Your task to perform on an android device: turn on javascript in the chrome app Image 0: 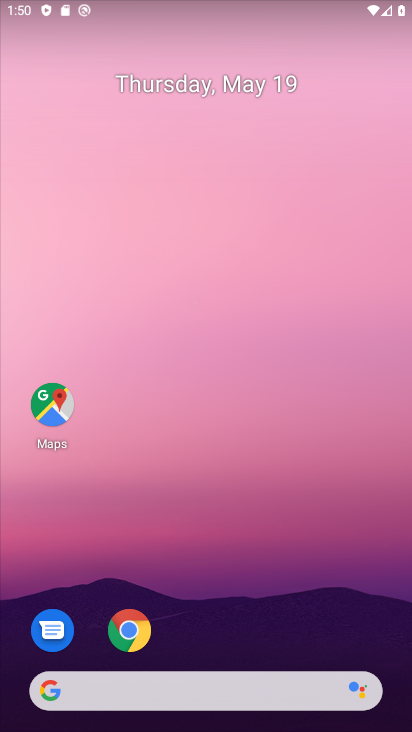
Step 0: drag from (274, 591) to (253, 26)
Your task to perform on an android device: turn on javascript in the chrome app Image 1: 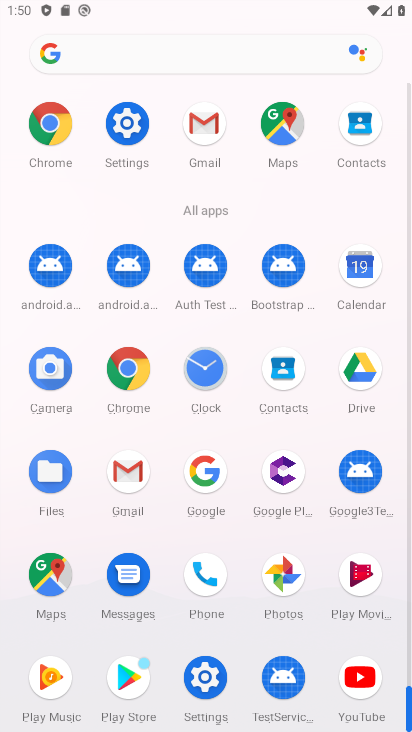
Step 1: drag from (4, 497) to (18, 166)
Your task to perform on an android device: turn on javascript in the chrome app Image 2: 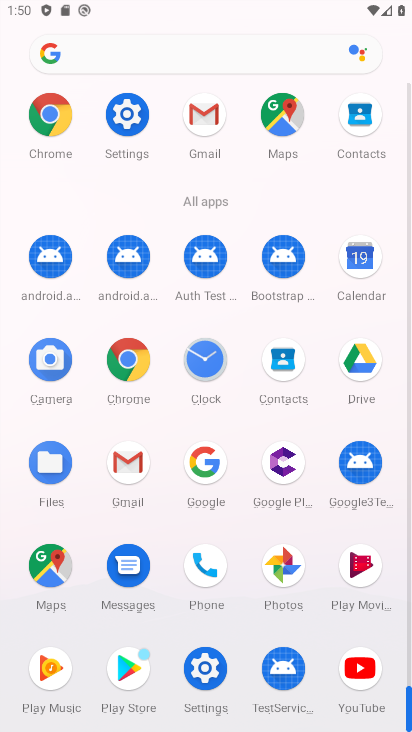
Step 2: click (128, 358)
Your task to perform on an android device: turn on javascript in the chrome app Image 3: 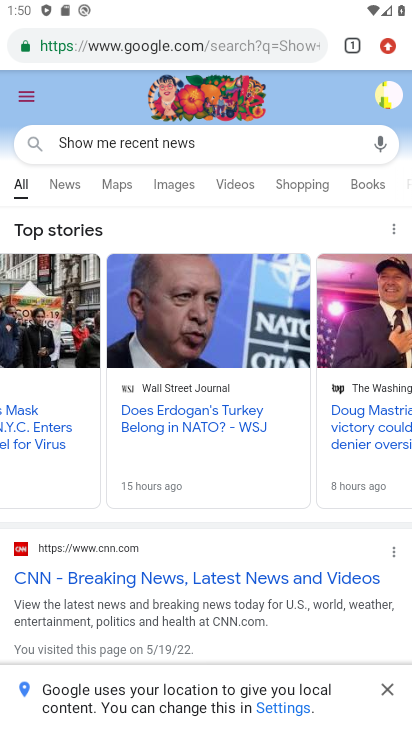
Step 3: drag from (383, 48) to (237, 551)
Your task to perform on an android device: turn on javascript in the chrome app Image 4: 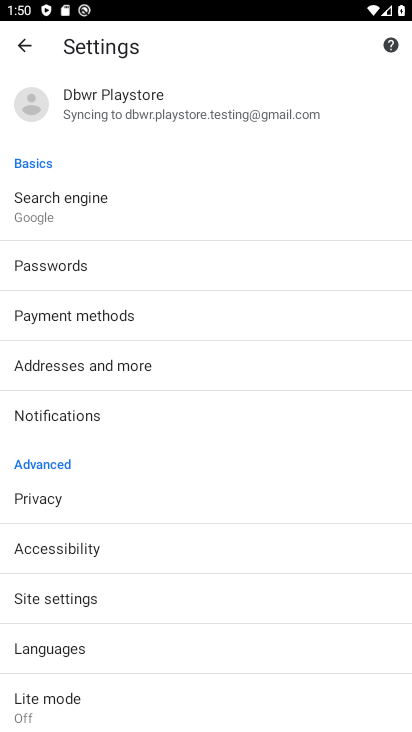
Step 4: drag from (184, 532) to (252, 179)
Your task to perform on an android device: turn on javascript in the chrome app Image 5: 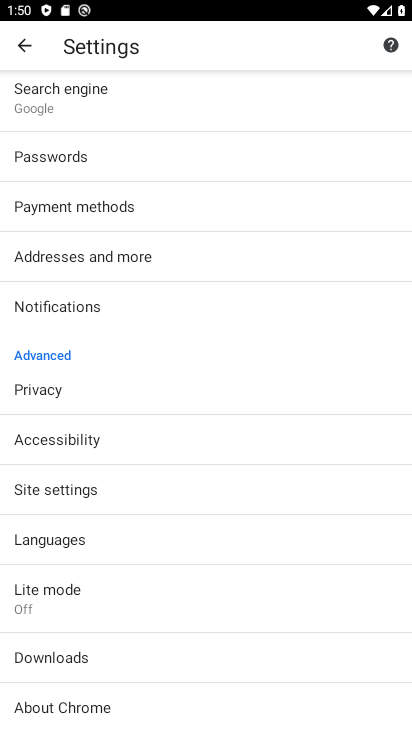
Step 5: click (85, 487)
Your task to perform on an android device: turn on javascript in the chrome app Image 6: 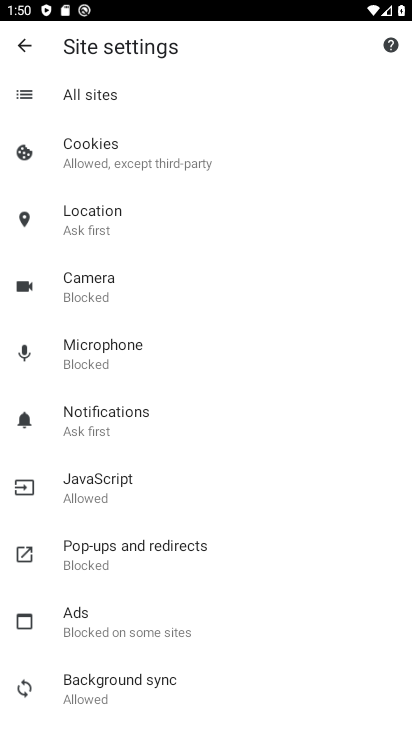
Step 6: click (121, 478)
Your task to perform on an android device: turn on javascript in the chrome app Image 7: 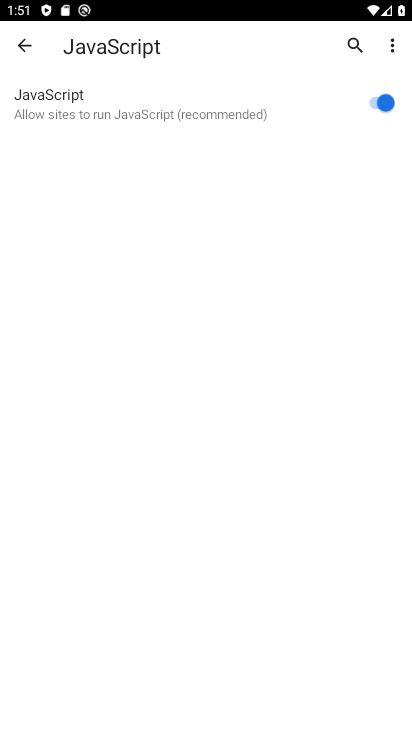
Step 7: task complete